Your task to perform on an android device: change alarm snooze length Image 0: 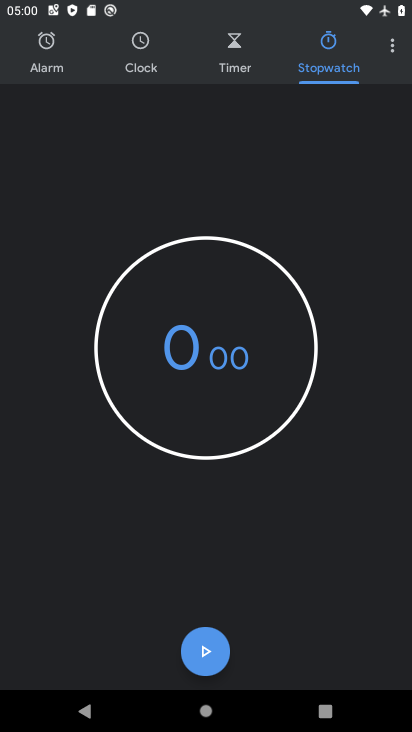
Step 0: click (398, 56)
Your task to perform on an android device: change alarm snooze length Image 1: 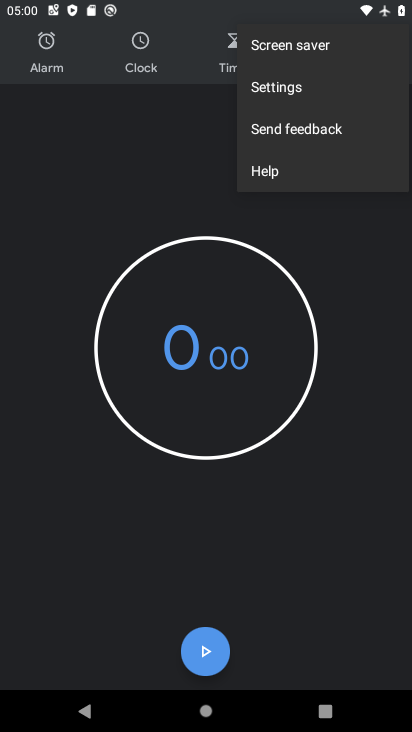
Step 1: click (288, 90)
Your task to perform on an android device: change alarm snooze length Image 2: 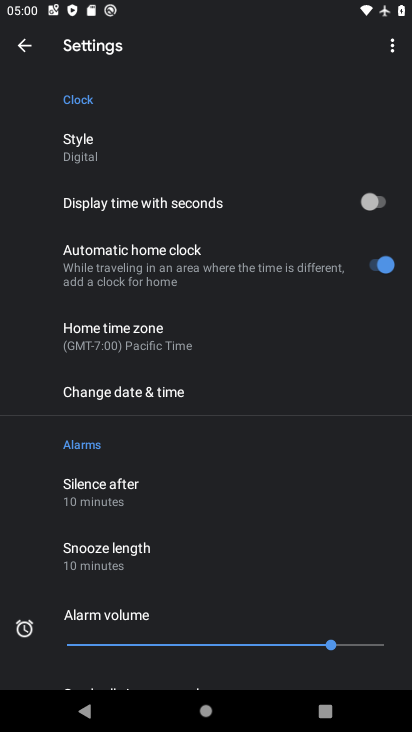
Step 2: click (162, 556)
Your task to perform on an android device: change alarm snooze length Image 3: 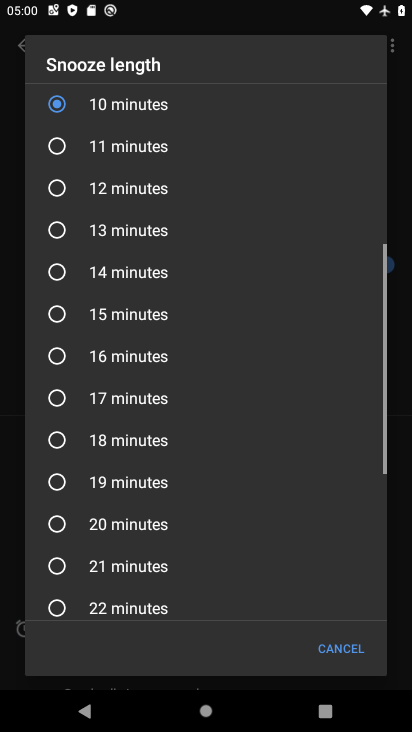
Step 3: click (149, 151)
Your task to perform on an android device: change alarm snooze length Image 4: 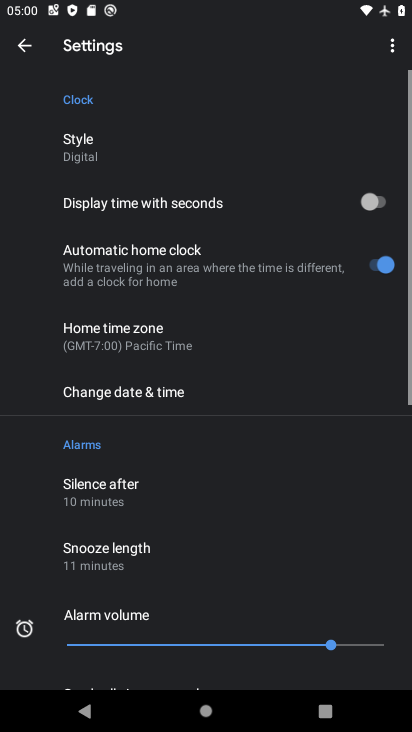
Step 4: task complete